Your task to perform on an android device: Open accessibility settings Image 0: 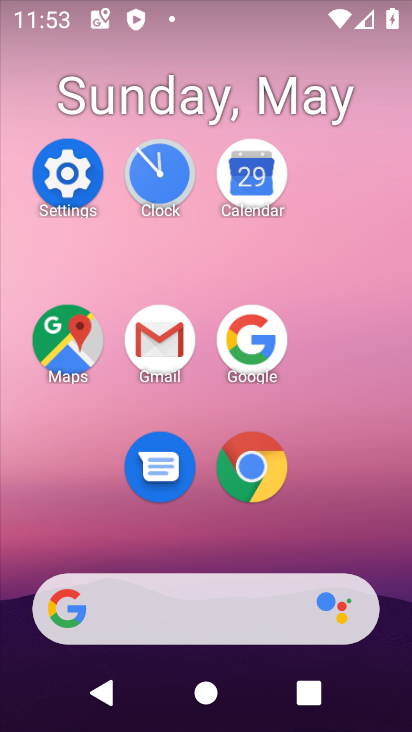
Step 0: click (65, 166)
Your task to perform on an android device: Open accessibility settings Image 1: 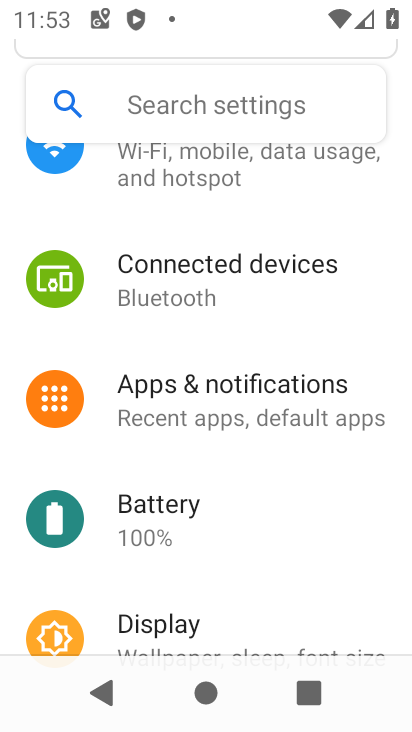
Step 1: drag from (351, 612) to (354, 210)
Your task to perform on an android device: Open accessibility settings Image 2: 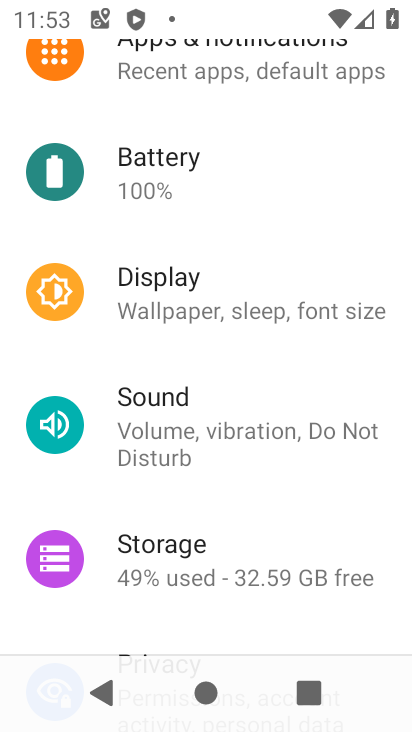
Step 2: drag from (284, 634) to (301, 212)
Your task to perform on an android device: Open accessibility settings Image 3: 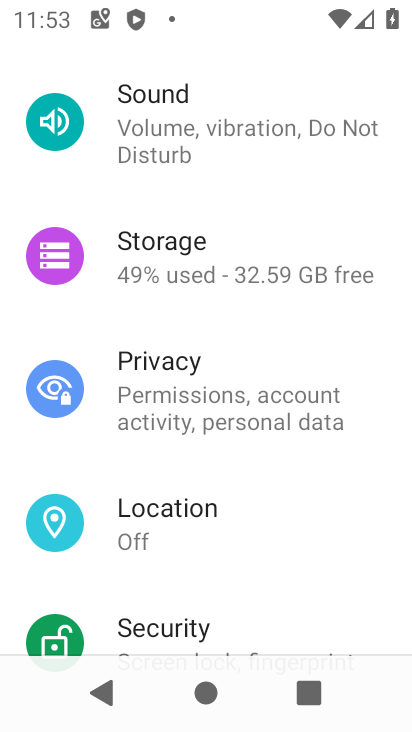
Step 3: drag from (270, 583) to (268, 203)
Your task to perform on an android device: Open accessibility settings Image 4: 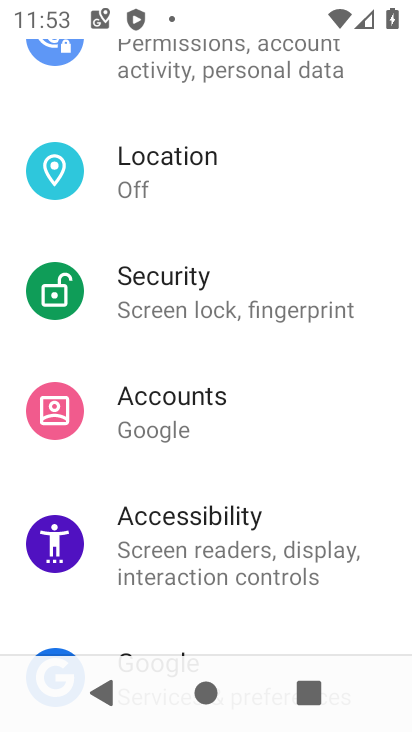
Step 4: click (202, 542)
Your task to perform on an android device: Open accessibility settings Image 5: 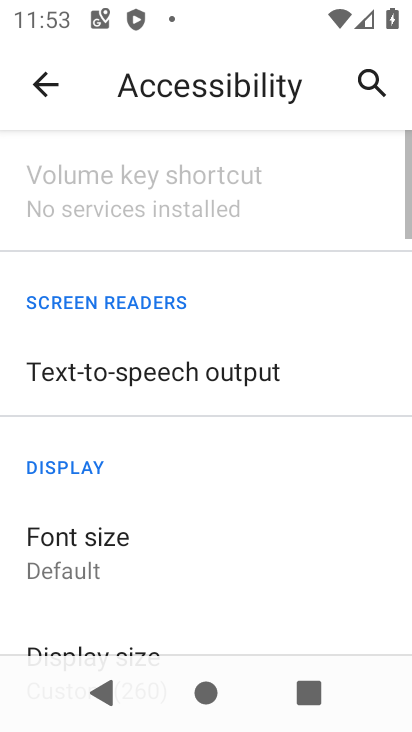
Step 5: task complete